Your task to perform on an android device: open a bookmark in the chrome app Image 0: 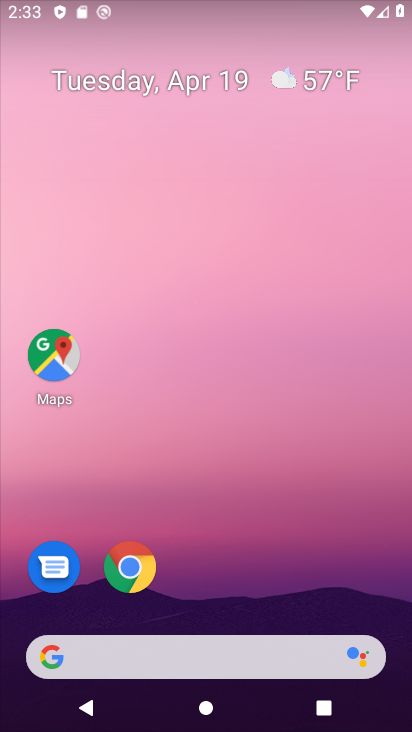
Step 0: drag from (396, 601) to (407, 179)
Your task to perform on an android device: open a bookmark in the chrome app Image 1: 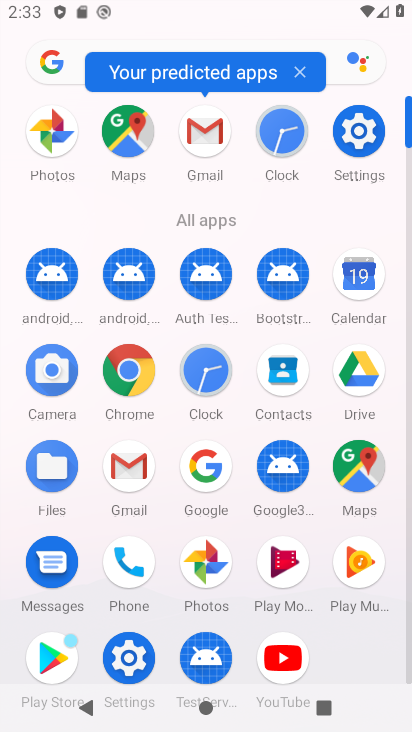
Step 1: click (110, 378)
Your task to perform on an android device: open a bookmark in the chrome app Image 2: 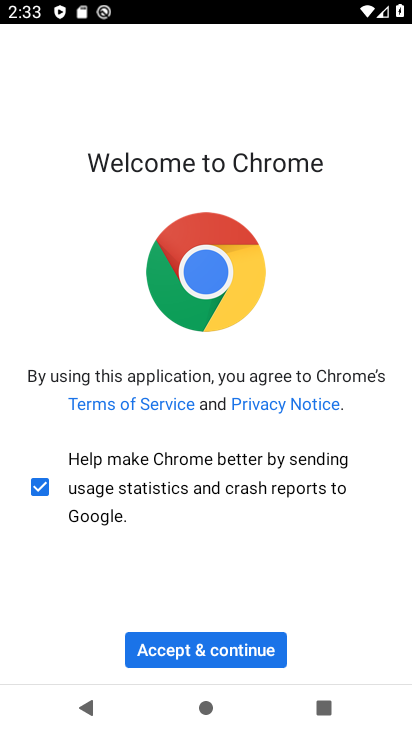
Step 2: click (223, 654)
Your task to perform on an android device: open a bookmark in the chrome app Image 3: 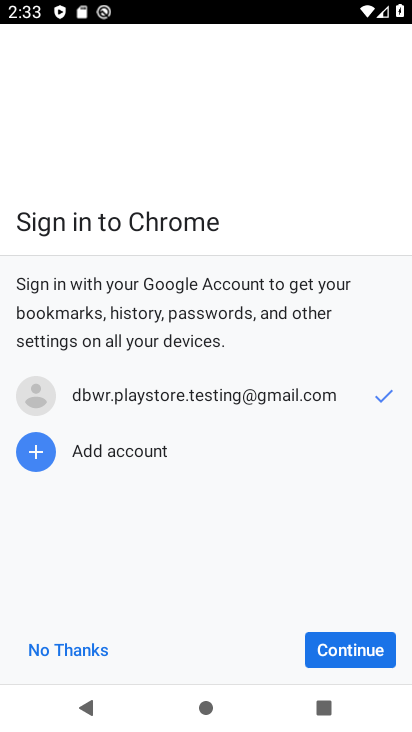
Step 3: click (361, 645)
Your task to perform on an android device: open a bookmark in the chrome app Image 4: 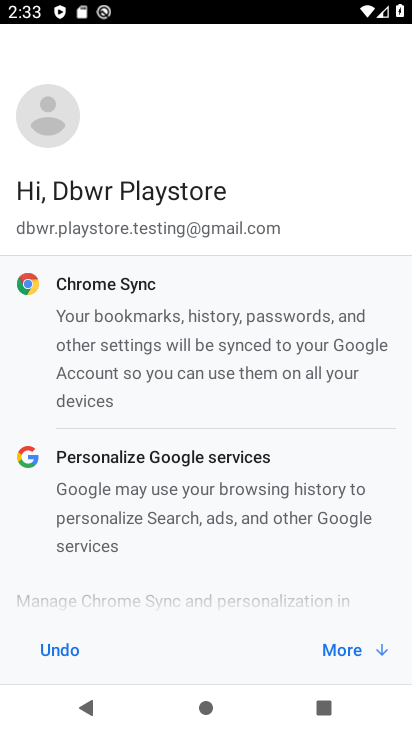
Step 4: click (362, 645)
Your task to perform on an android device: open a bookmark in the chrome app Image 5: 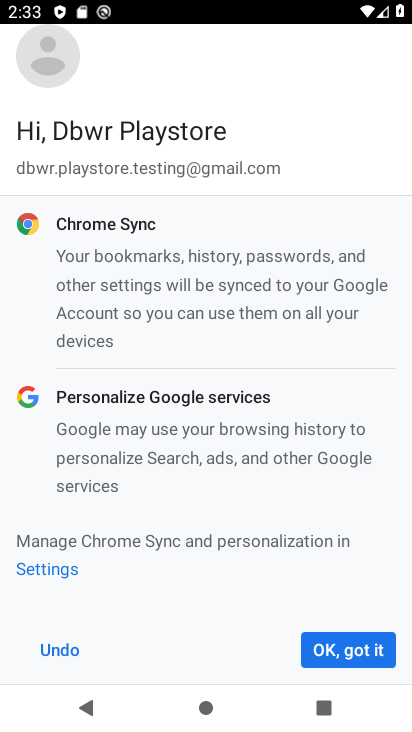
Step 5: click (364, 644)
Your task to perform on an android device: open a bookmark in the chrome app Image 6: 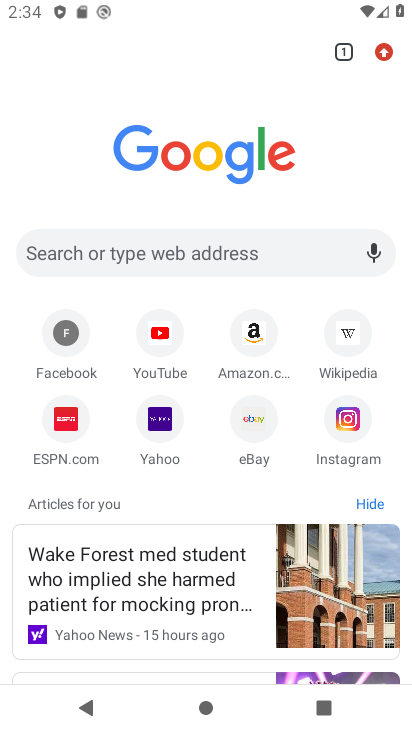
Step 6: click (381, 45)
Your task to perform on an android device: open a bookmark in the chrome app Image 7: 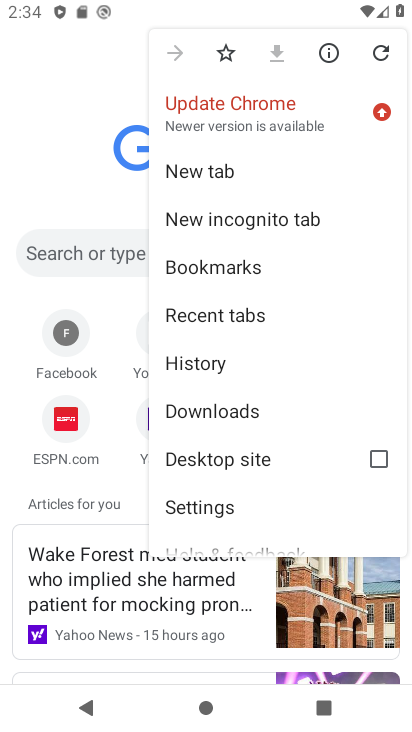
Step 7: click (239, 270)
Your task to perform on an android device: open a bookmark in the chrome app Image 8: 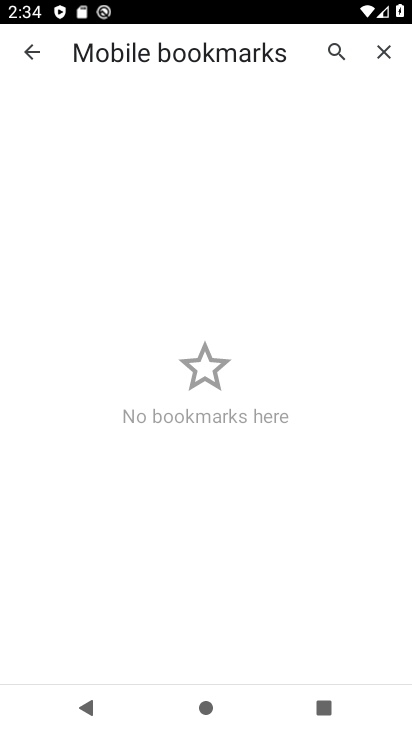
Step 8: task complete